Your task to perform on an android device: Play the last video I watched on Youtube Image 0: 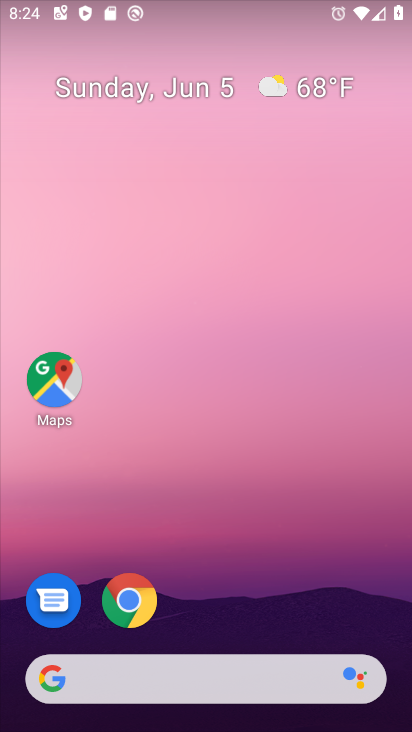
Step 0: drag from (366, 550) to (289, 76)
Your task to perform on an android device: Play the last video I watched on Youtube Image 1: 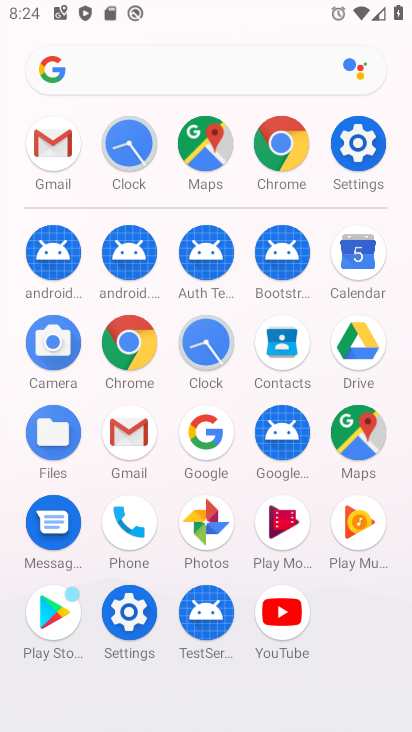
Step 1: click (276, 611)
Your task to perform on an android device: Play the last video I watched on Youtube Image 2: 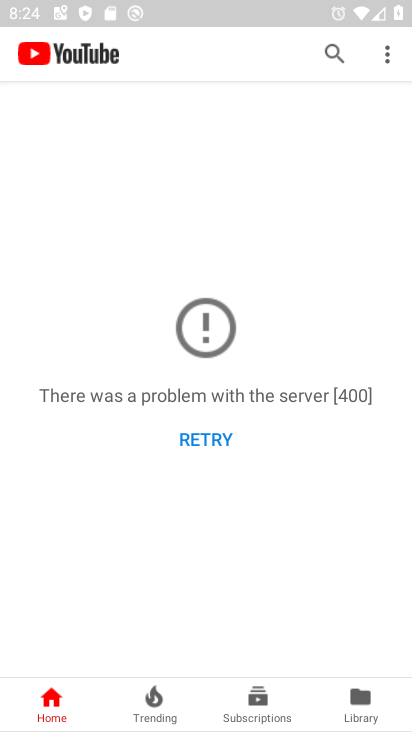
Step 2: click (354, 698)
Your task to perform on an android device: Play the last video I watched on Youtube Image 3: 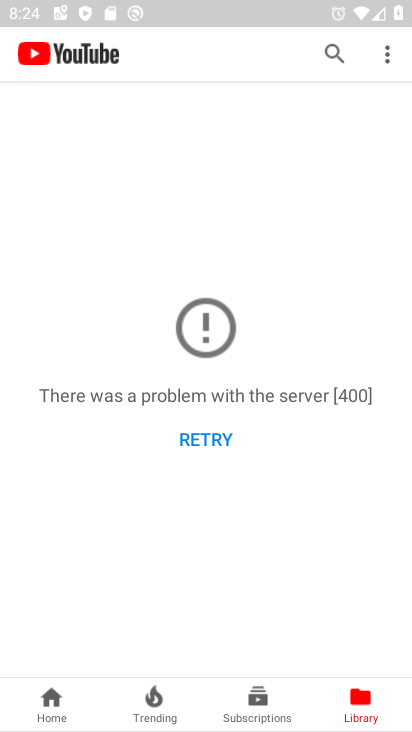
Step 3: click (213, 432)
Your task to perform on an android device: Play the last video I watched on Youtube Image 4: 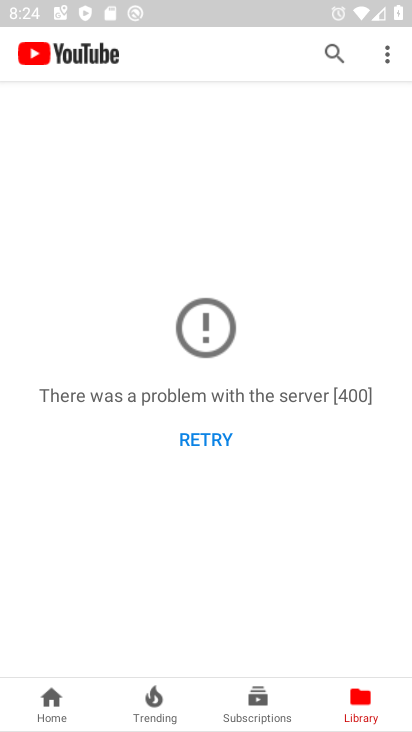
Step 4: click (213, 432)
Your task to perform on an android device: Play the last video I watched on Youtube Image 5: 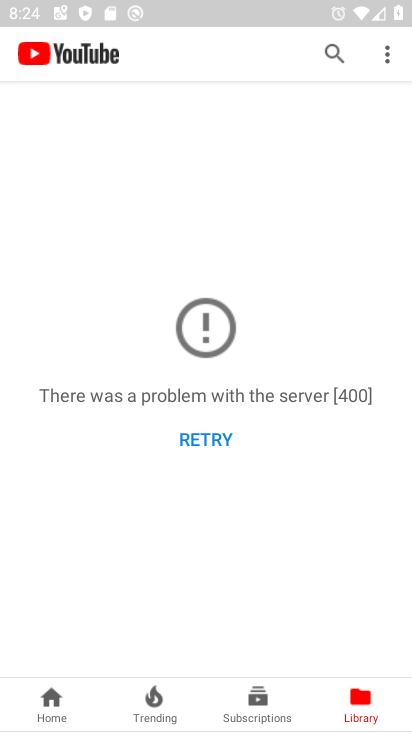
Step 5: task complete